Your task to perform on an android device: change the clock display to analog Image 0: 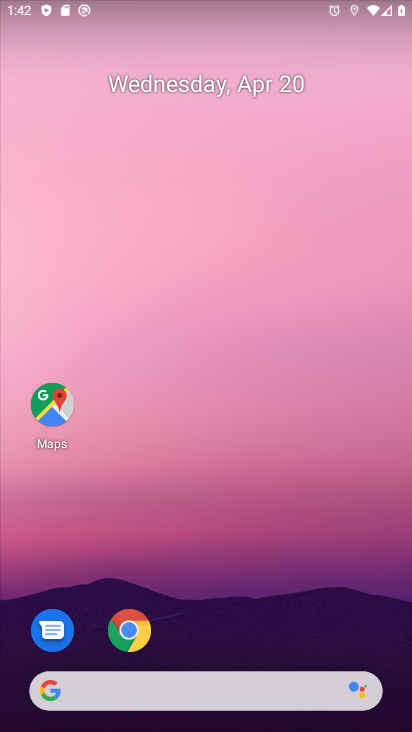
Step 0: drag from (215, 583) to (68, 92)
Your task to perform on an android device: change the clock display to analog Image 1: 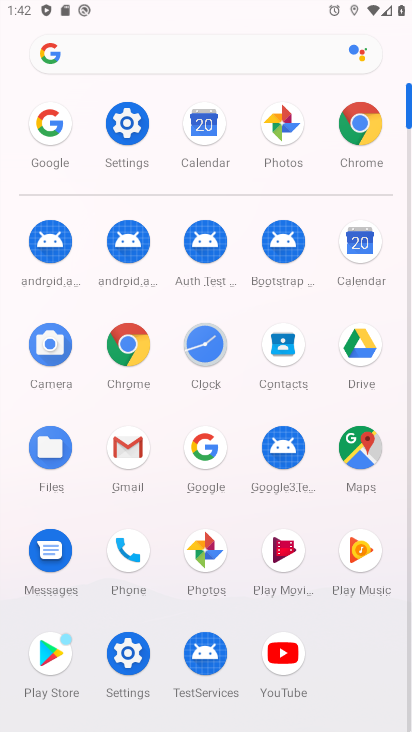
Step 1: click (210, 351)
Your task to perform on an android device: change the clock display to analog Image 2: 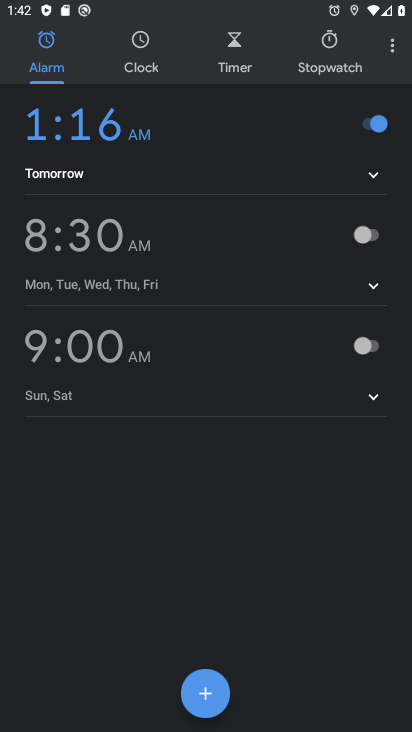
Step 2: drag from (394, 49) to (382, 91)
Your task to perform on an android device: change the clock display to analog Image 3: 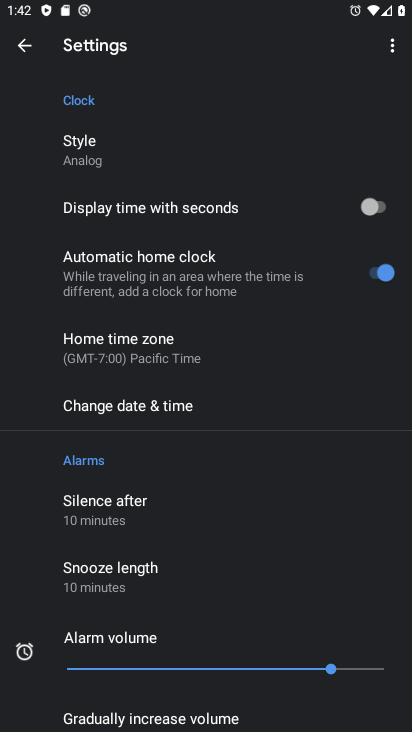
Step 3: click (80, 157)
Your task to perform on an android device: change the clock display to analog Image 4: 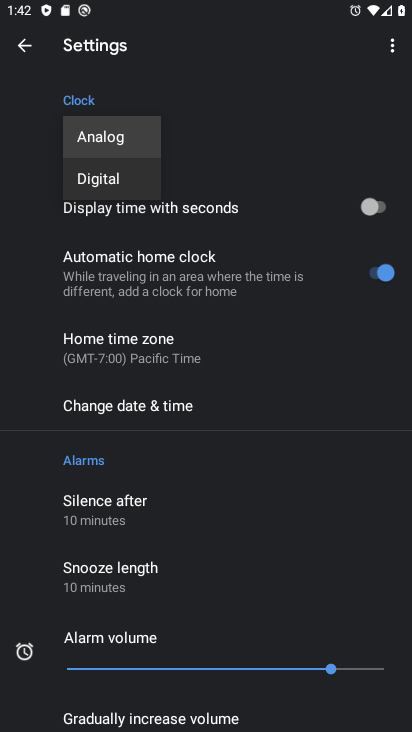
Step 4: task complete